Your task to perform on an android device: Open Youtube and go to the subscriptions tab Image 0: 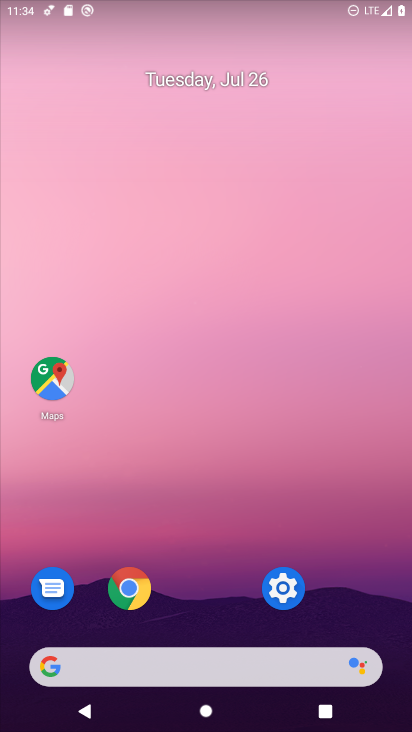
Step 0: drag from (269, 666) to (207, 186)
Your task to perform on an android device: Open Youtube and go to the subscriptions tab Image 1: 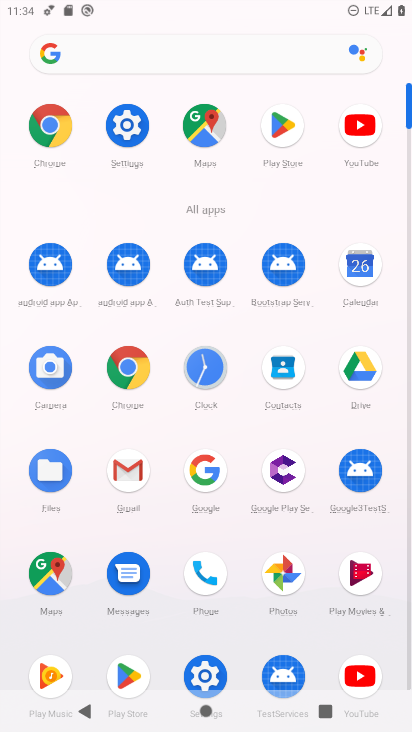
Step 1: click (368, 127)
Your task to perform on an android device: Open Youtube and go to the subscriptions tab Image 2: 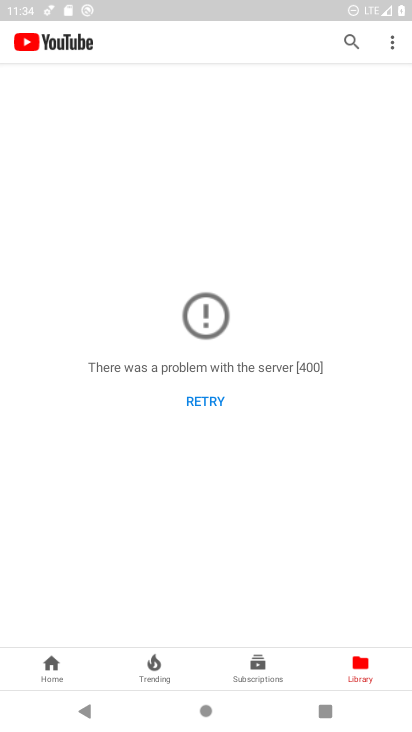
Step 2: click (267, 674)
Your task to perform on an android device: Open Youtube and go to the subscriptions tab Image 3: 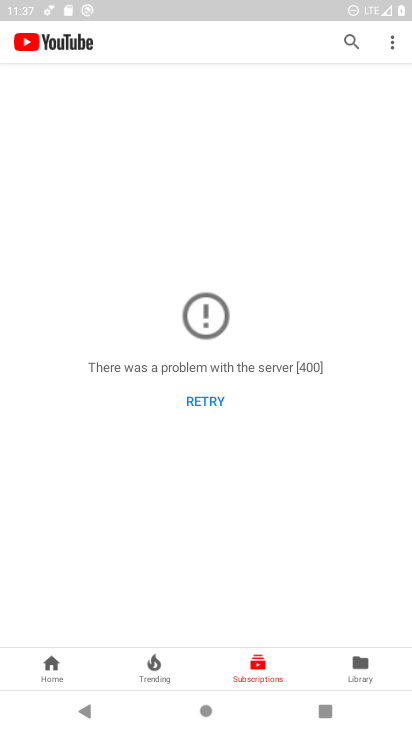
Step 3: task complete